Your task to perform on an android device: turn on wifi Image 0: 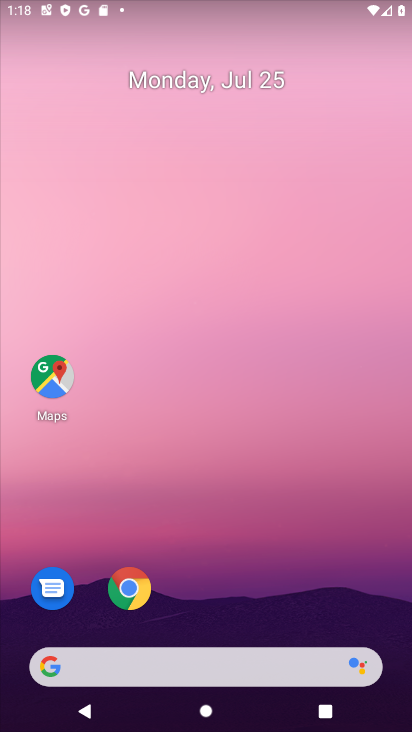
Step 0: drag from (203, 577) to (213, 49)
Your task to perform on an android device: turn on wifi Image 1: 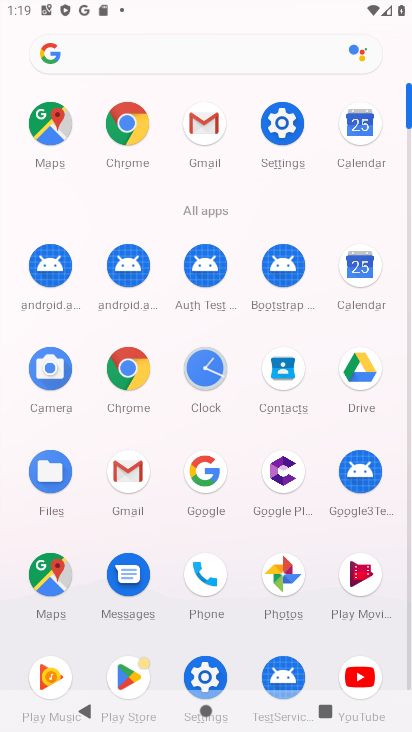
Step 1: click (279, 128)
Your task to perform on an android device: turn on wifi Image 2: 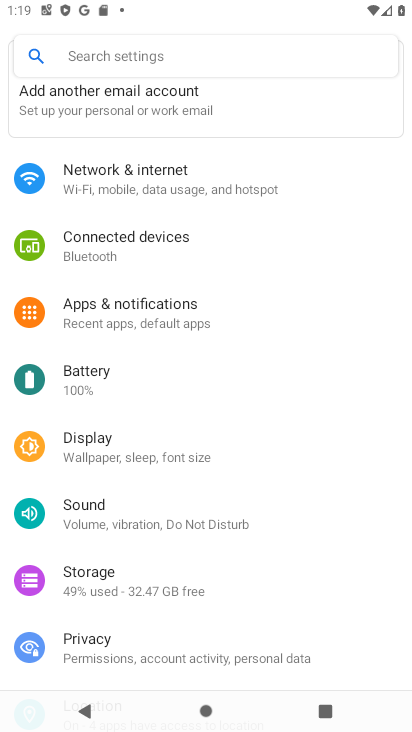
Step 2: click (191, 194)
Your task to perform on an android device: turn on wifi Image 3: 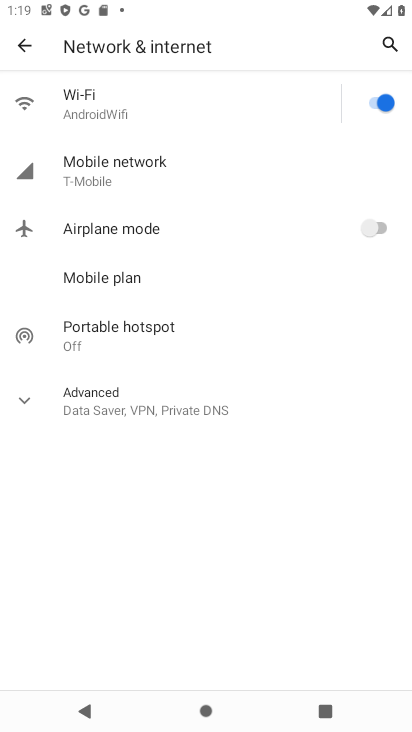
Step 3: task complete